Your task to perform on an android device: open app "VLC for Android" (install if not already installed) Image 0: 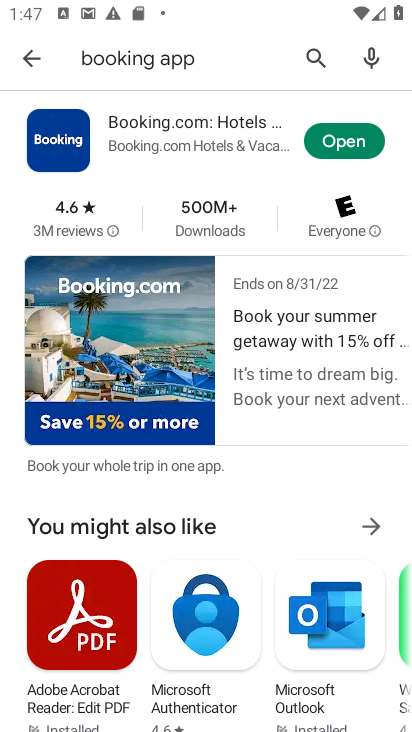
Step 0: click (319, 50)
Your task to perform on an android device: open app "VLC for Android" (install if not already installed) Image 1: 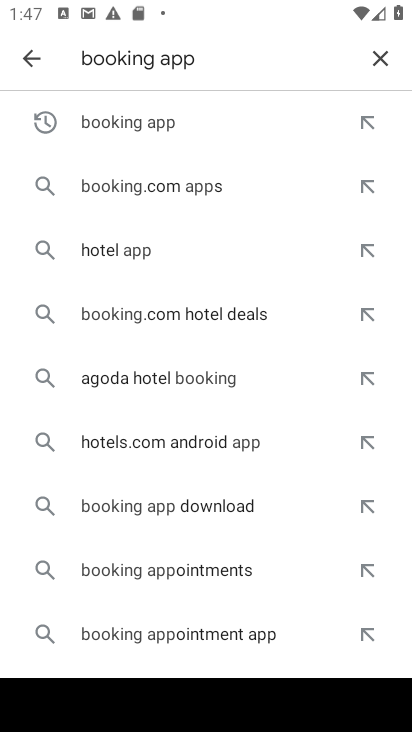
Step 1: click (379, 67)
Your task to perform on an android device: open app "VLC for Android" (install if not already installed) Image 2: 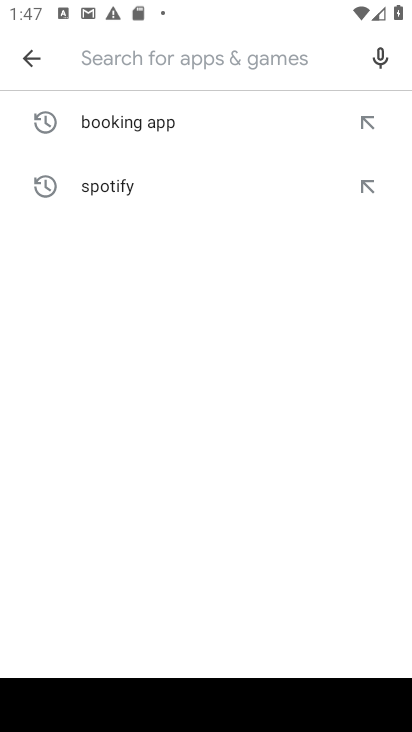
Step 2: type "vlc"
Your task to perform on an android device: open app "VLC for Android" (install if not already installed) Image 3: 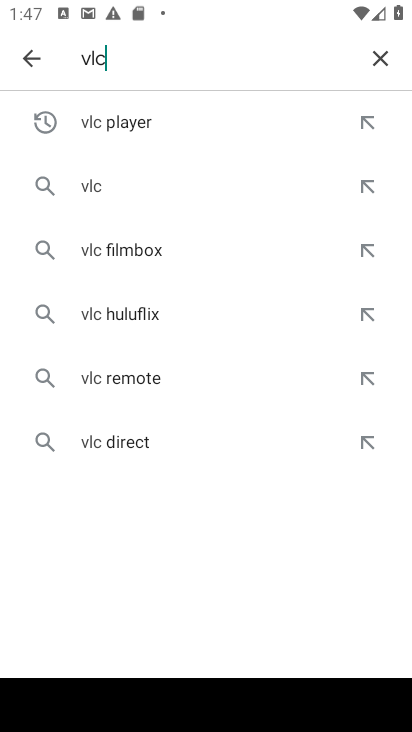
Step 3: click (171, 118)
Your task to perform on an android device: open app "VLC for Android" (install if not already installed) Image 4: 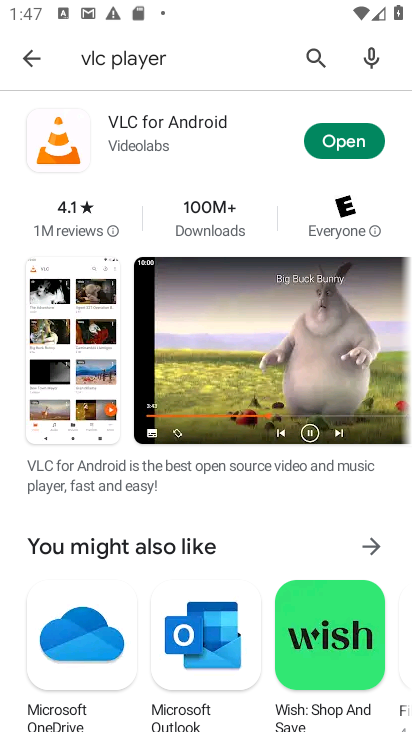
Step 4: click (329, 148)
Your task to perform on an android device: open app "VLC for Android" (install if not already installed) Image 5: 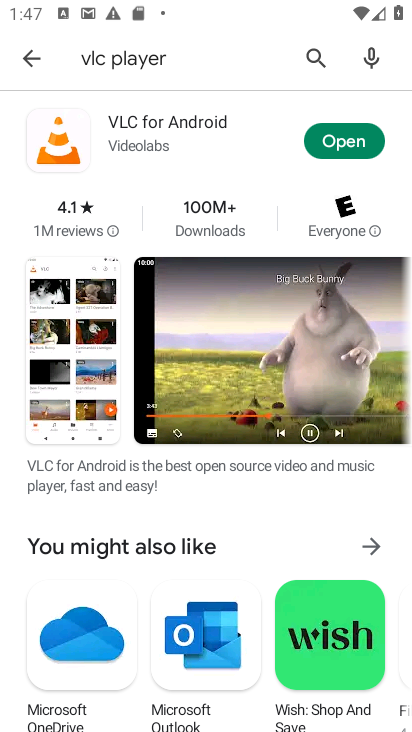
Step 5: task complete